Your task to perform on an android device: turn on priority inbox in the gmail app Image 0: 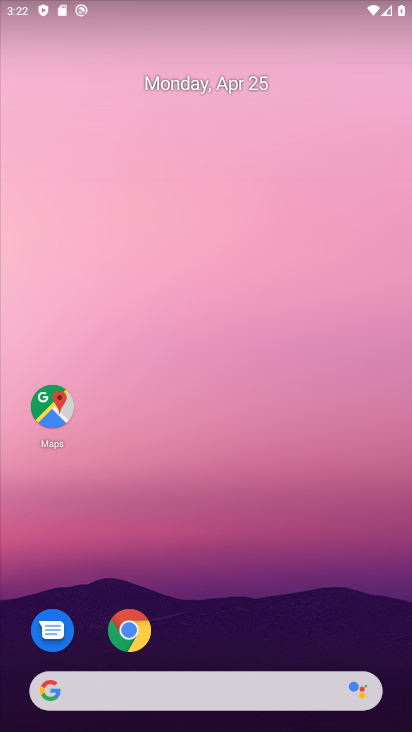
Step 0: drag from (204, 624) to (258, 24)
Your task to perform on an android device: turn on priority inbox in the gmail app Image 1: 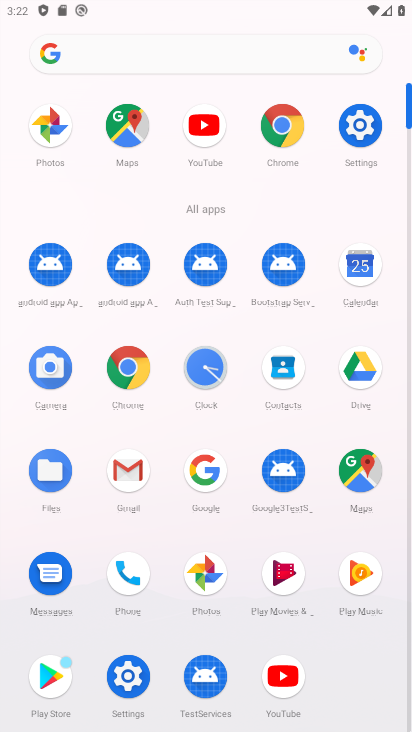
Step 1: click (138, 473)
Your task to perform on an android device: turn on priority inbox in the gmail app Image 2: 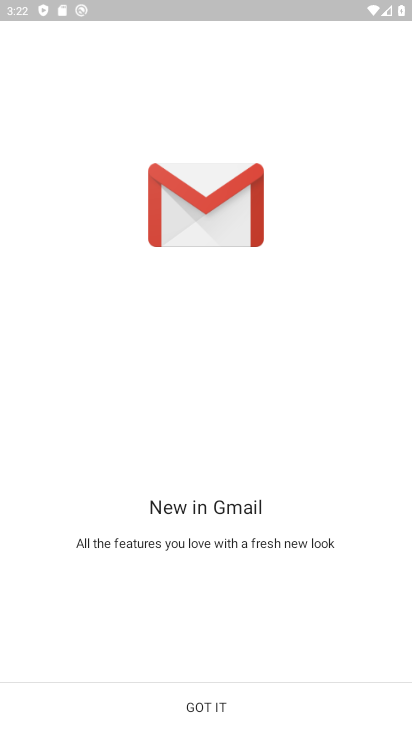
Step 2: click (214, 706)
Your task to perform on an android device: turn on priority inbox in the gmail app Image 3: 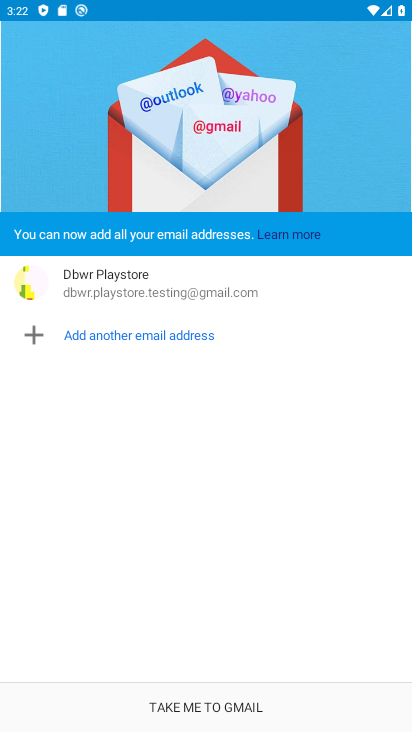
Step 3: click (214, 706)
Your task to perform on an android device: turn on priority inbox in the gmail app Image 4: 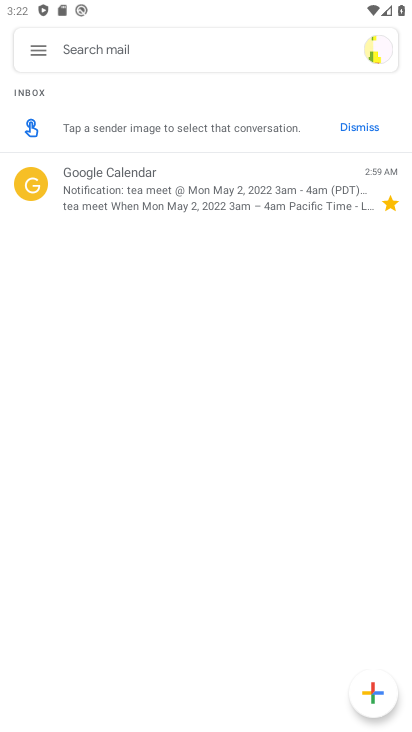
Step 4: click (34, 48)
Your task to perform on an android device: turn on priority inbox in the gmail app Image 5: 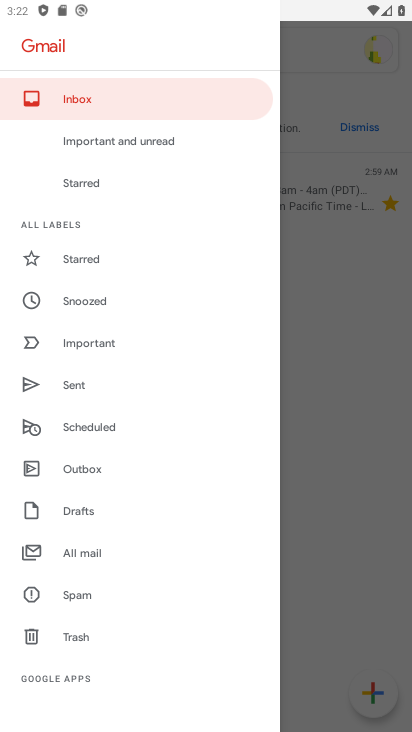
Step 5: drag from (121, 654) to (120, 337)
Your task to perform on an android device: turn on priority inbox in the gmail app Image 6: 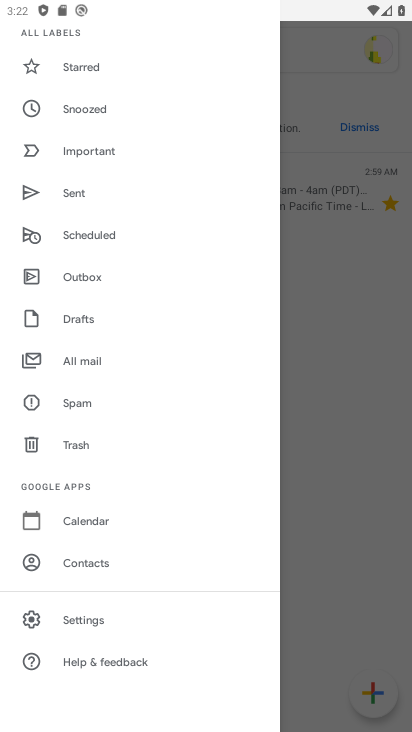
Step 6: click (92, 620)
Your task to perform on an android device: turn on priority inbox in the gmail app Image 7: 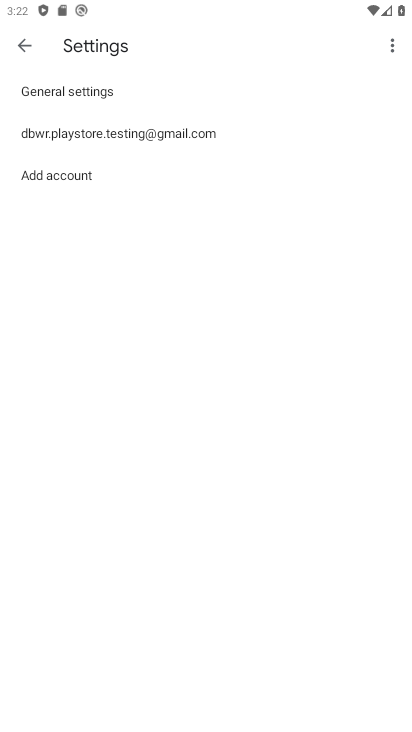
Step 7: click (122, 127)
Your task to perform on an android device: turn on priority inbox in the gmail app Image 8: 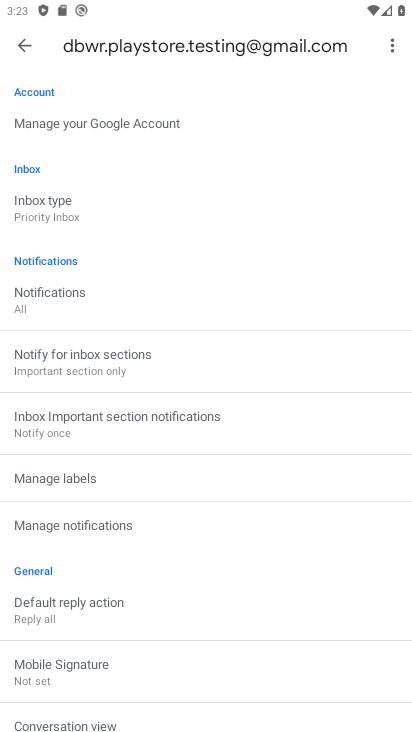
Step 8: task complete